Your task to perform on an android device: Add macbook pro 13 inch to the cart on target, then select checkout. Image 0: 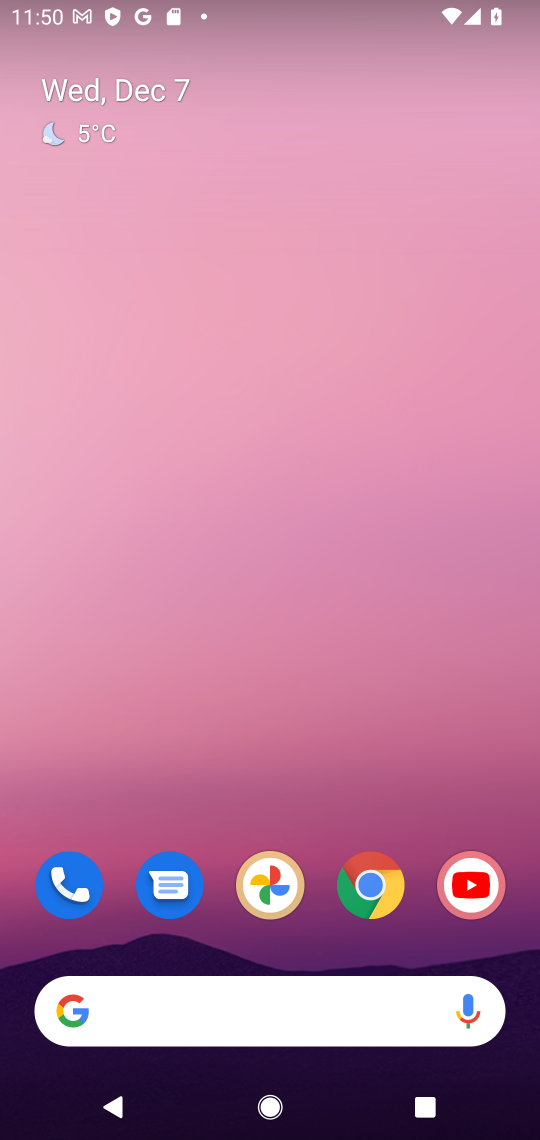
Step 0: click (378, 884)
Your task to perform on an android device: Add macbook pro 13 inch to the cart on target, then select checkout. Image 1: 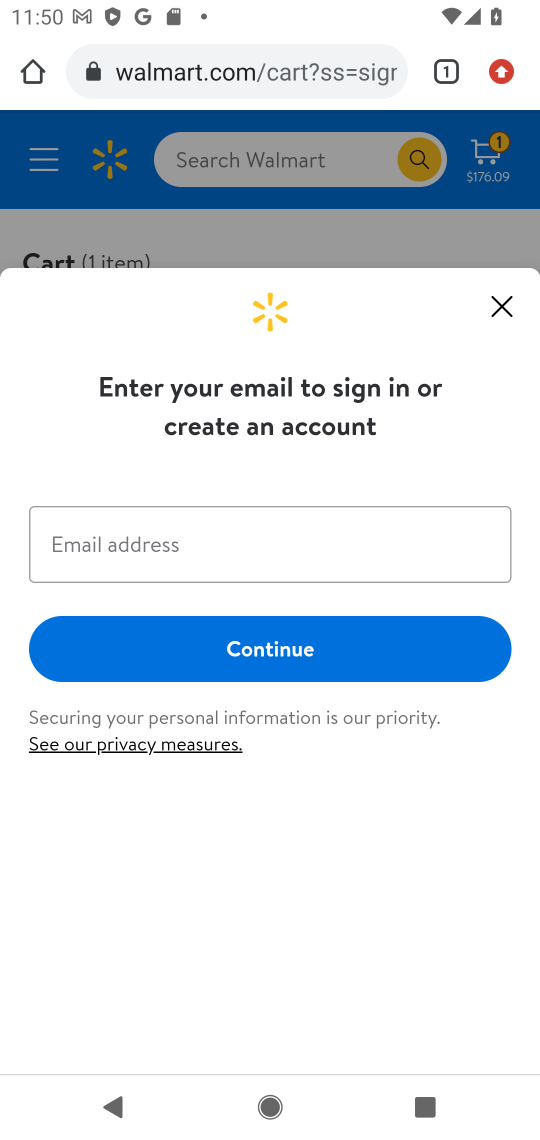
Step 1: click (294, 78)
Your task to perform on an android device: Add macbook pro 13 inch to the cart on target, then select checkout. Image 2: 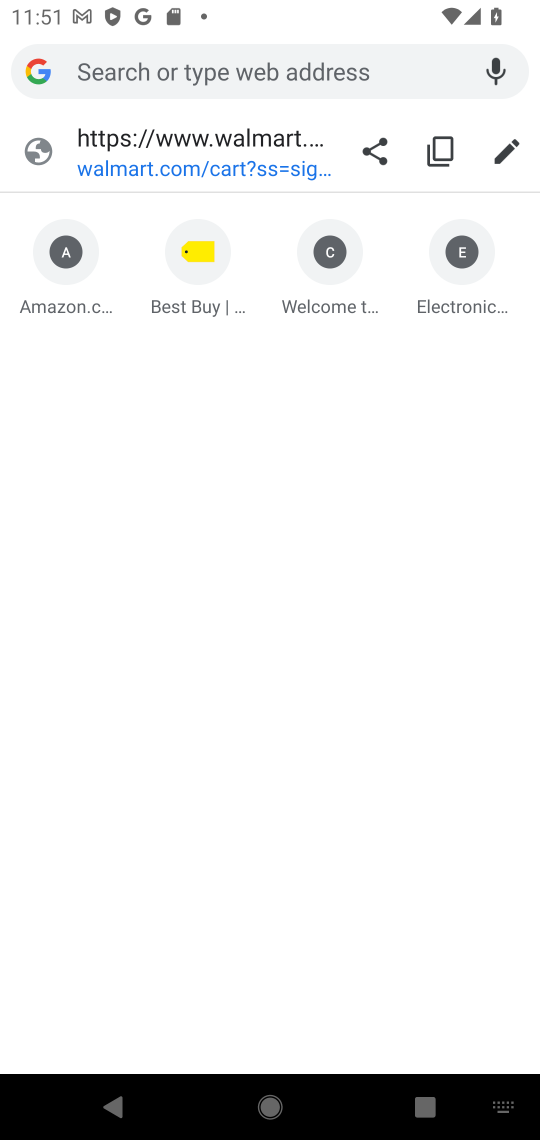
Step 2: type "TARGET"
Your task to perform on an android device: Add macbook pro 13 inch to the cart on target, then select checkout. Image 3: 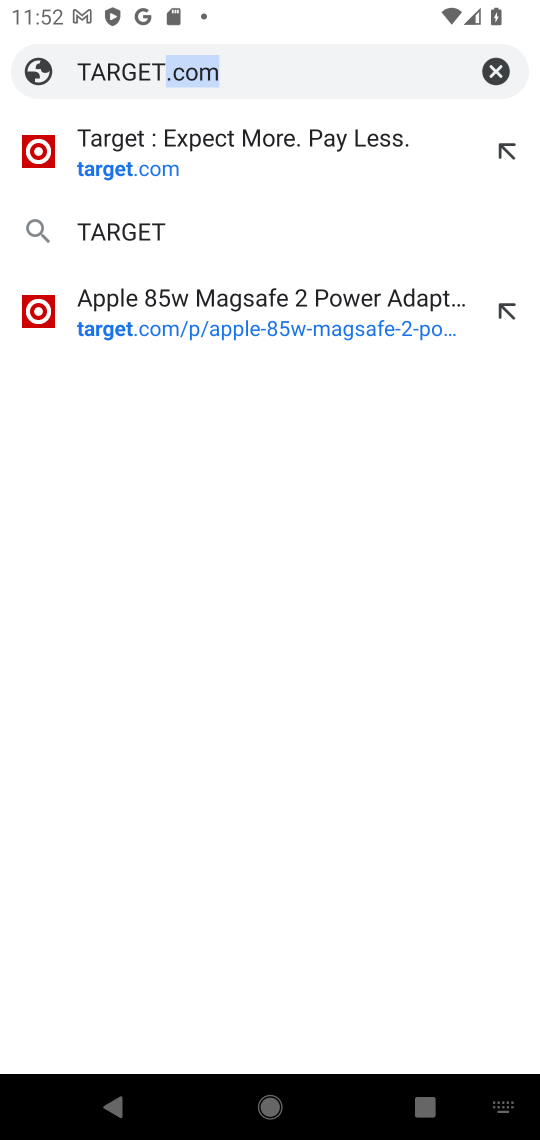
Step 3: click (254, 151)
Your task to perform on an android device: Add macbook pro 13 inch to the cart on target, then select checkout. Image 4: 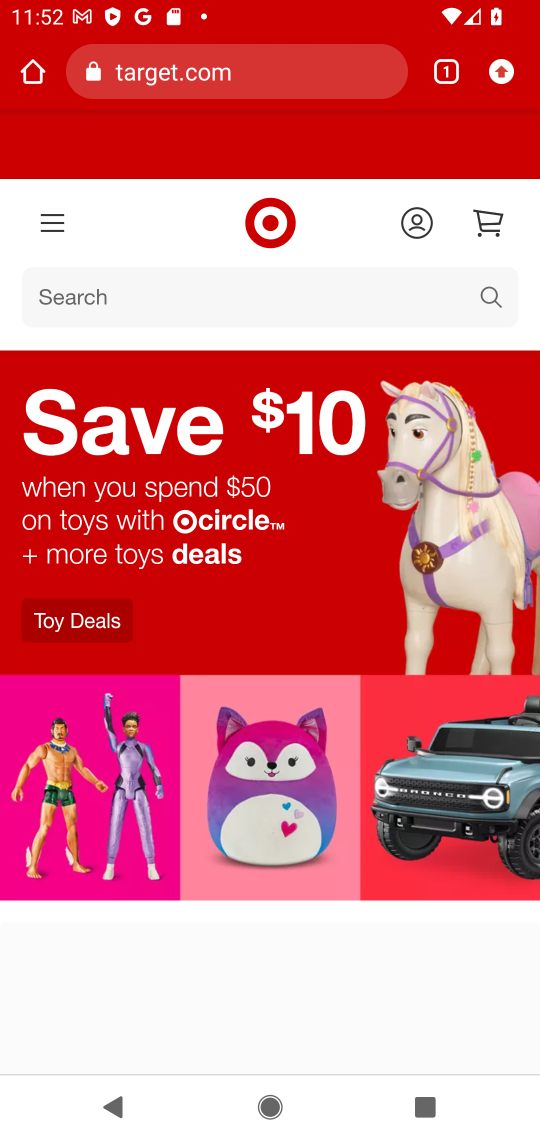
Step 4: click (311, 302)
Your task to perform on an android device: Add macbook pro 13 inch to the cart on target, then select checkout. Image 5: 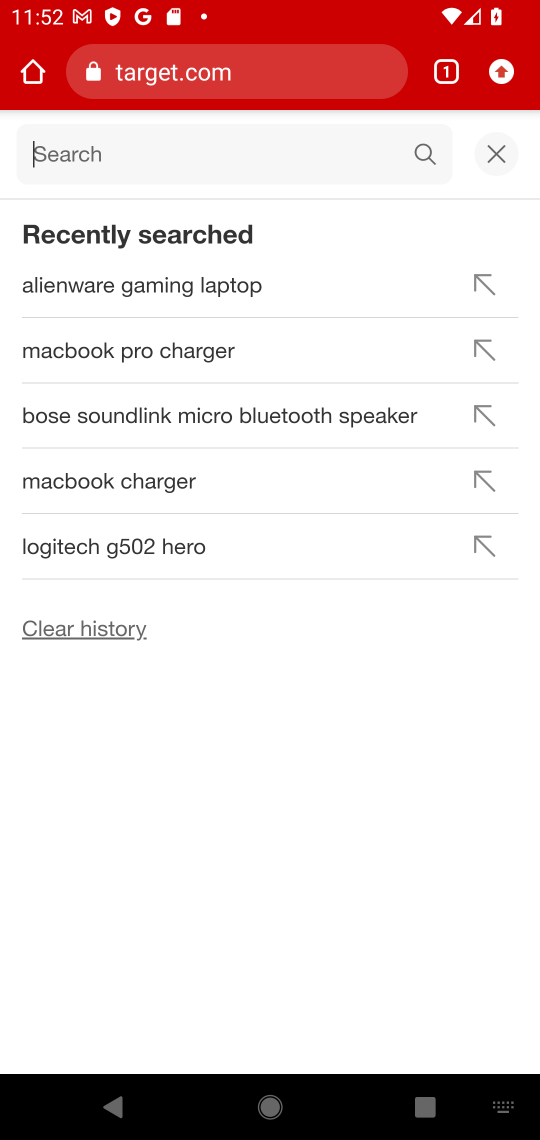
Step 5: type "MACBOOK PRO 13 INCH"
Your task to perform on an android device: Add macbook pro 13 inch to the cart on target, then select checkout. Image 6: 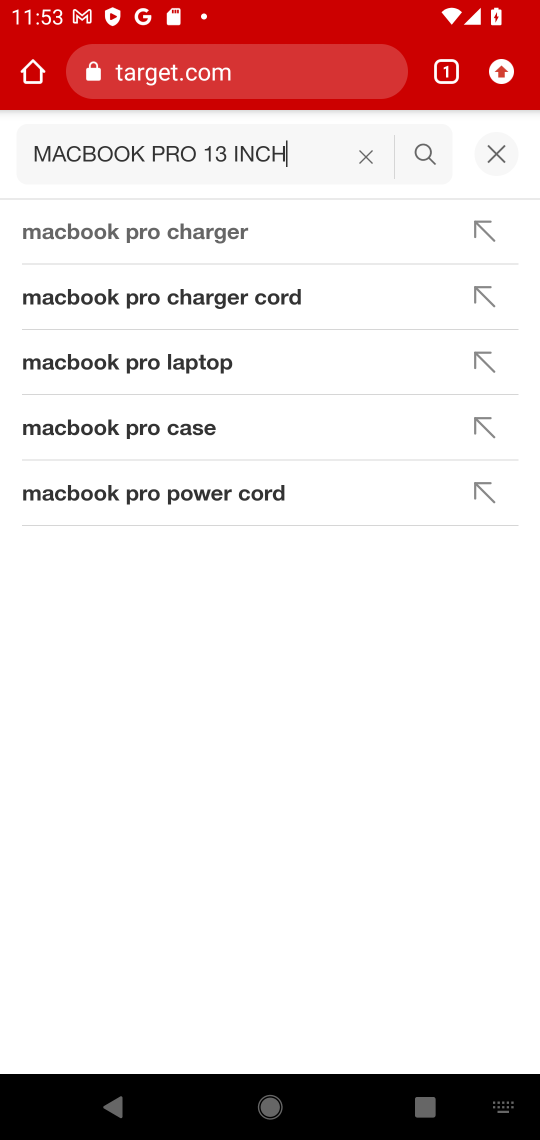
Step 6: click (120, 233)
Your task to perform on an android device: Add macbook pro 13 inch to the cart on target, then select checkout. Image 7: 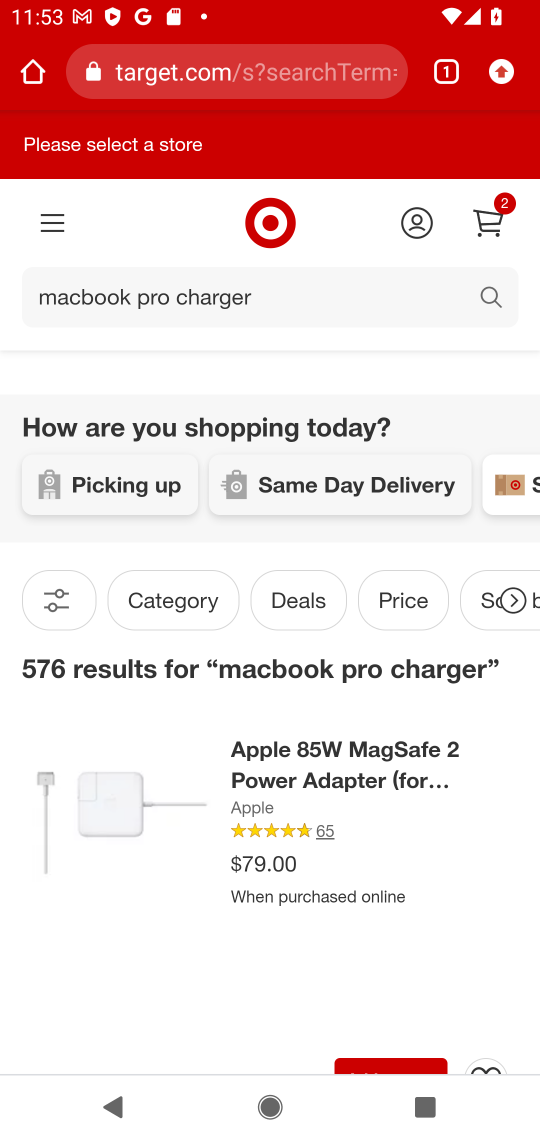
Step 7: click (187, 816)
Your task to perform on an android device: Add macbook pro 13 inch to the cart on target, then select checkout. Image 8: 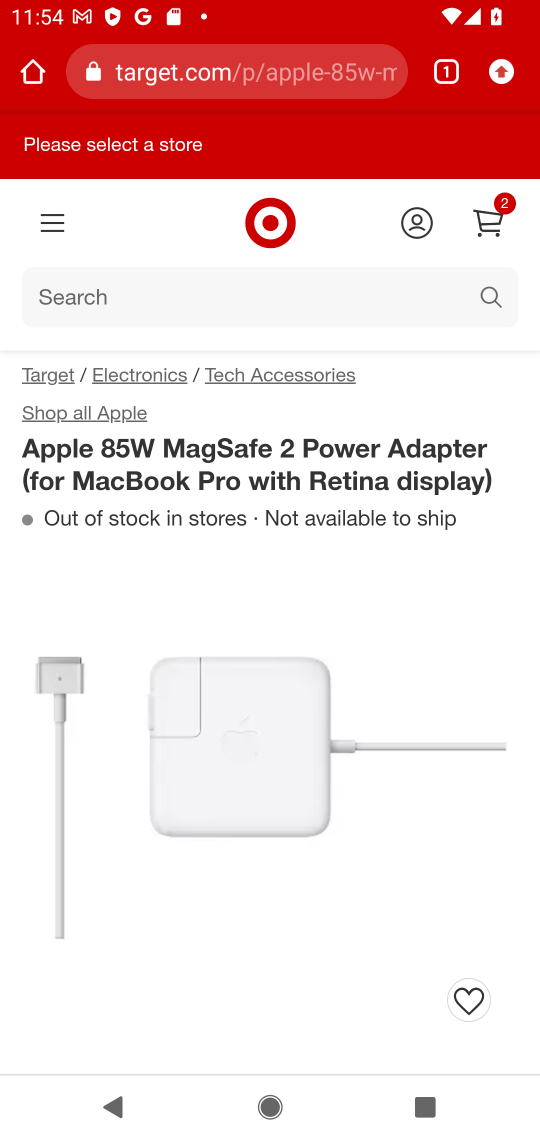
Step 8: drag from (234, 957) to (183, 285)
Your task to perform on an android device: Add macbook pro 13 inch to the cart on target, then select checkout. Image 9: 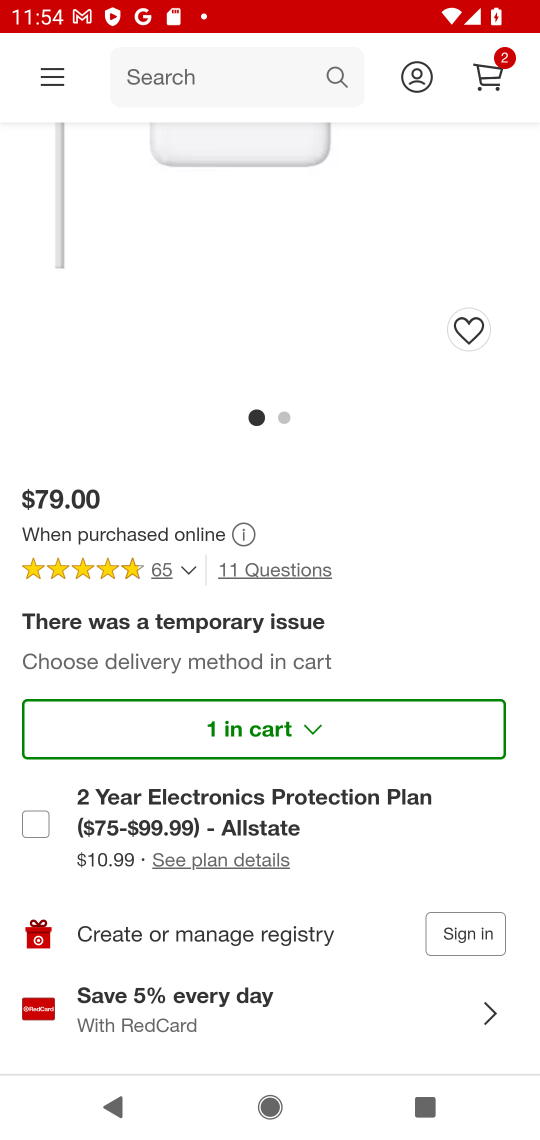
Step 9: drag from (280, 896) to (213, 117)
Your task to perform on an android device: Add macbook pro 13 inch to the cart on target, then select checkout. Image 10: 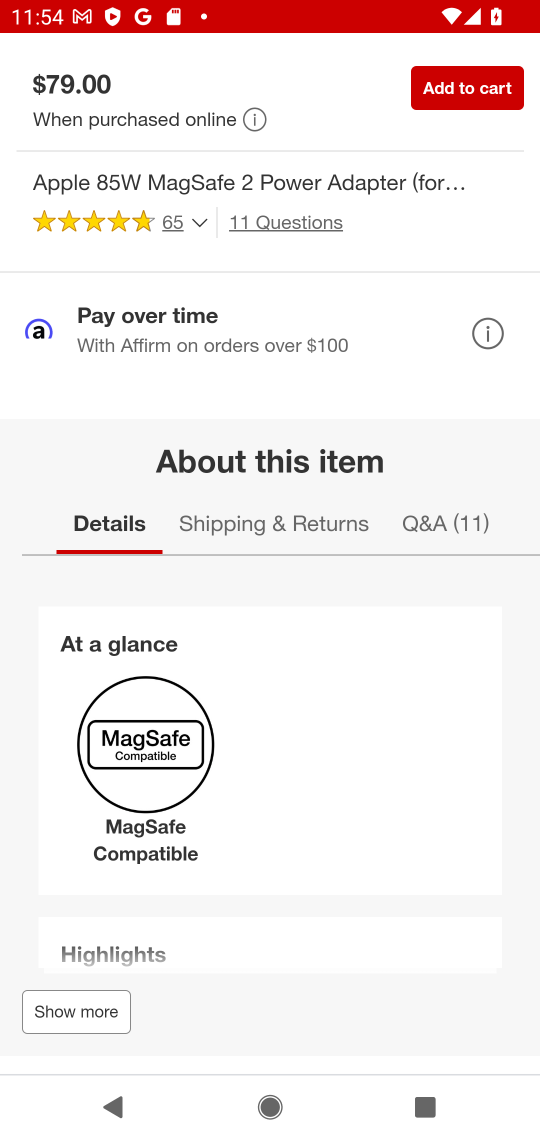
Step 10: click (449, 87)
Your task to perform on an android device: Add macbook pro 13 inch to the cart on target, then select checkout. Image 11: 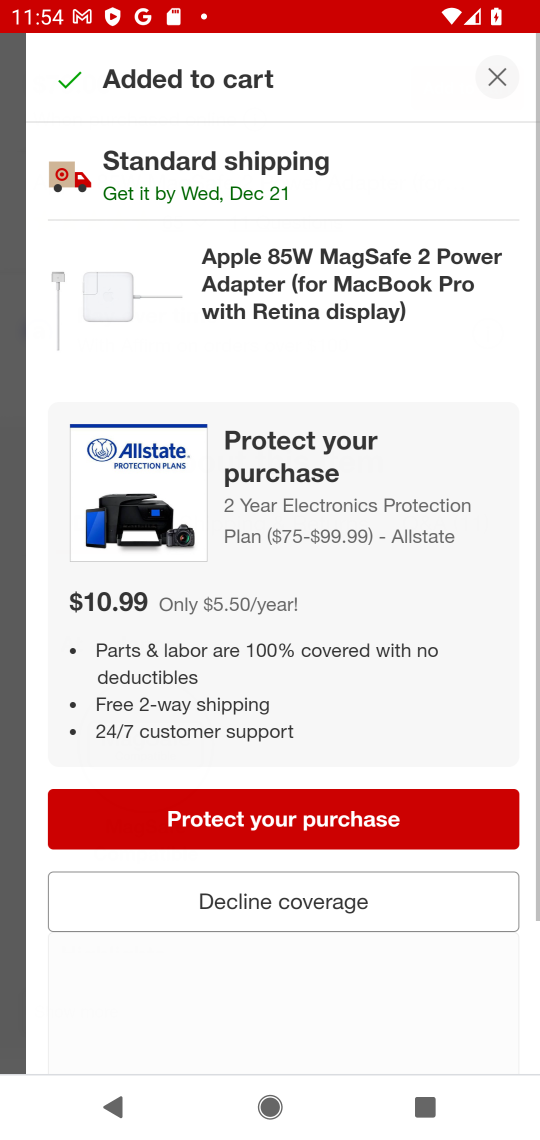
Step 11: task complete